Your task to perform on an android device: turn off airplane mode Image 0: 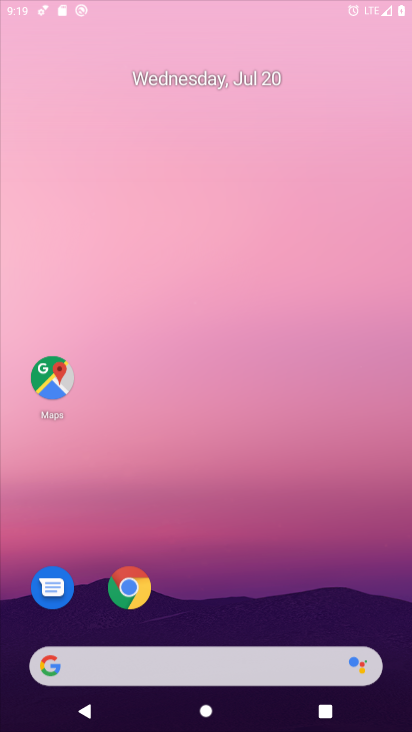
Step 0: press home button
Your task to perform on an android device: turn off airplane mode Image 1: 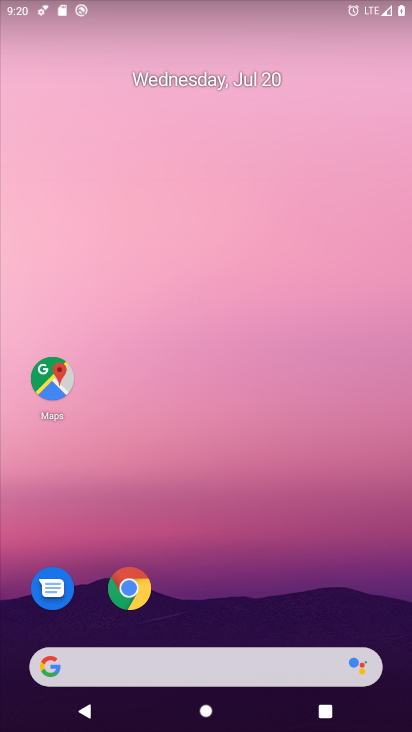
Step 1: task complete